Your task to perform on an android device: View the shopping cart on costco. Search for "razer blade" on costco, select the first entry, add it to the cart, then select checkout. Image 0: 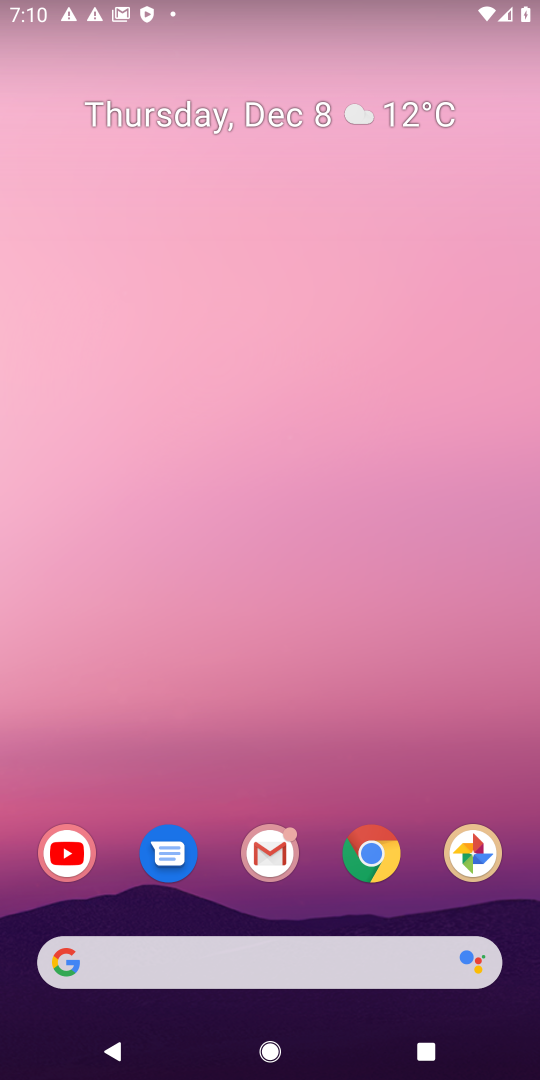
Step 0: click (152, 959)
Your task to perform on an android device: View the shopping cart on costco. Search for "razer blade" on costco, select the first entry, add it to the cart, then select checkout. Image 1: 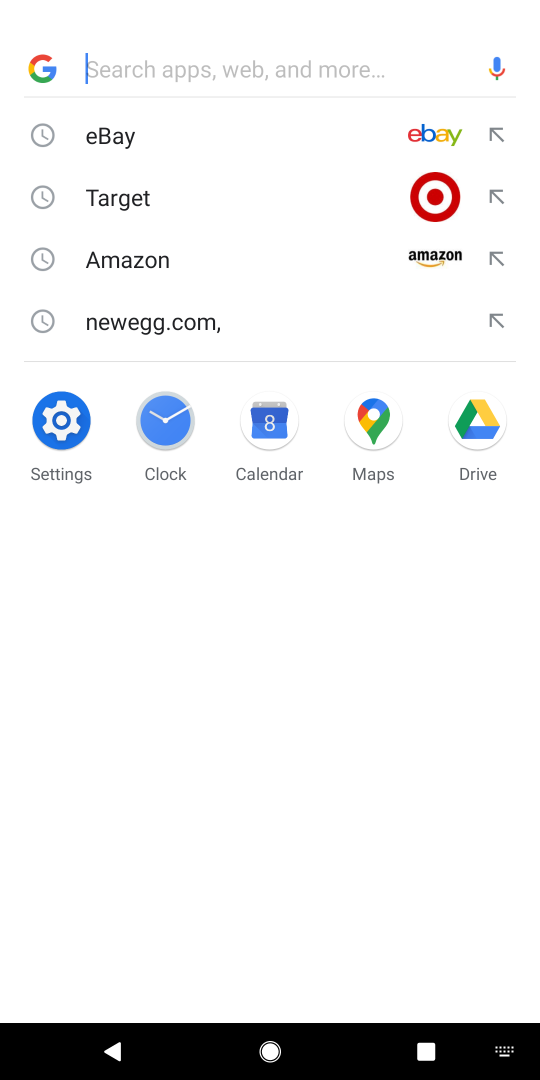
Step 1: type "costco"
Your task to perform on an android device: View the shopping cart on costco. Search for "razer blade" on costco, select the first entry, add it to the cart, then select checkout. Image 2: 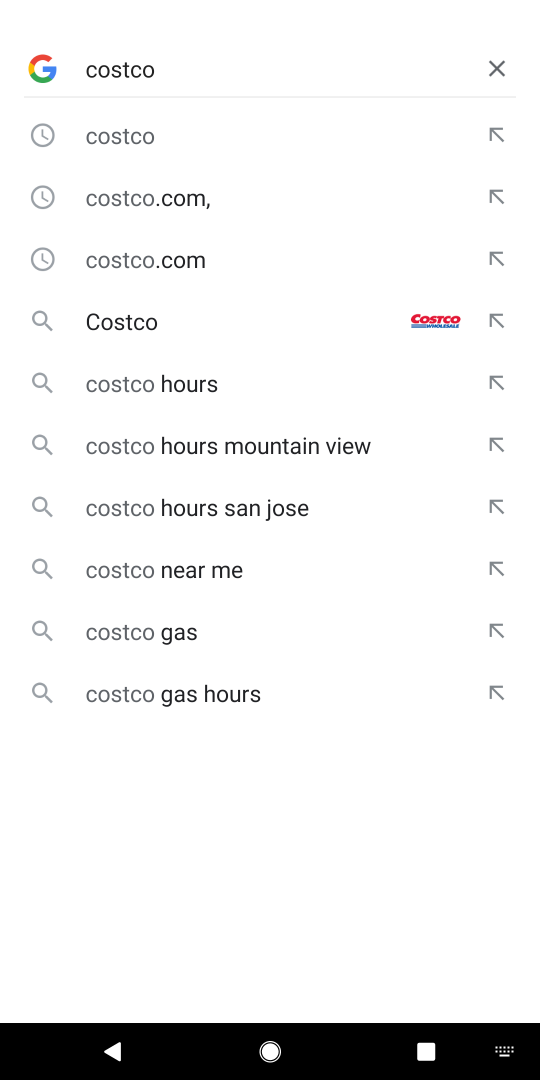
Step 2: type ""
Your task to perform on an android device: View the shopping cart on costco. Search for "razer blade" on costco, select the first entry, add it to the cart, then select checkout. Image 3: 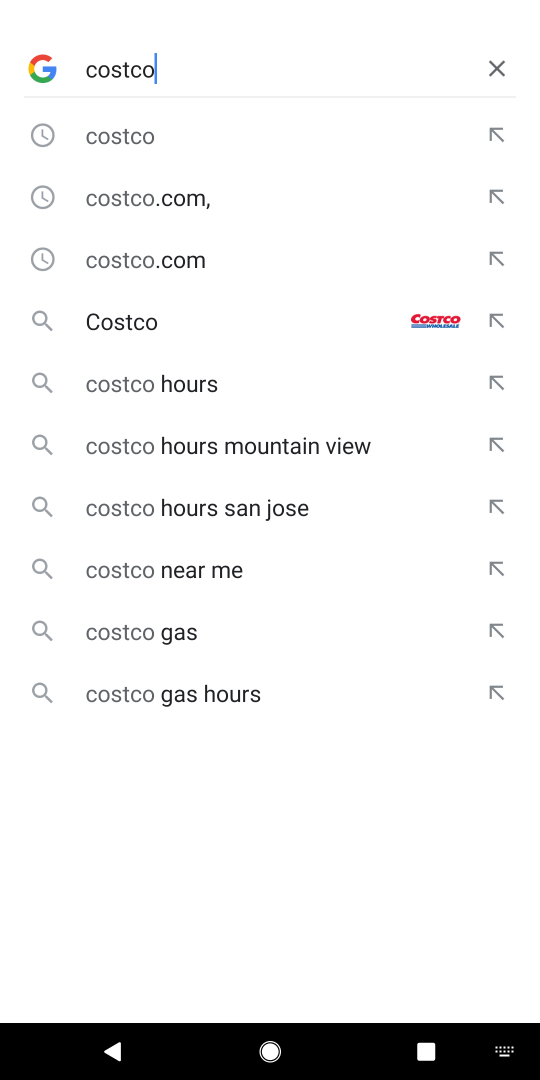
Step 3: click (113, 197)
Your task to perform on an android device: View the shopping cart on costco. Search for "razer blade" on costco, select the first entry, add it to the cart, then select checkout. Image 4: 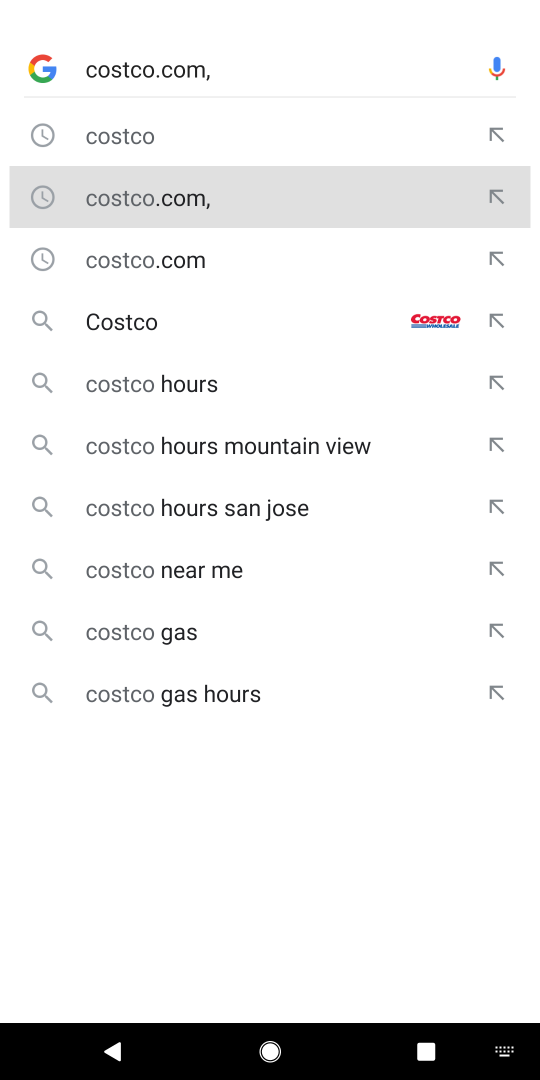
Step 4: click (113, 197)
Your task to perform on an android device: View the shopping cart on costco. Search for "razer blade" on costco, select the first entry, add it to the cart, then select checkout. Image 5: 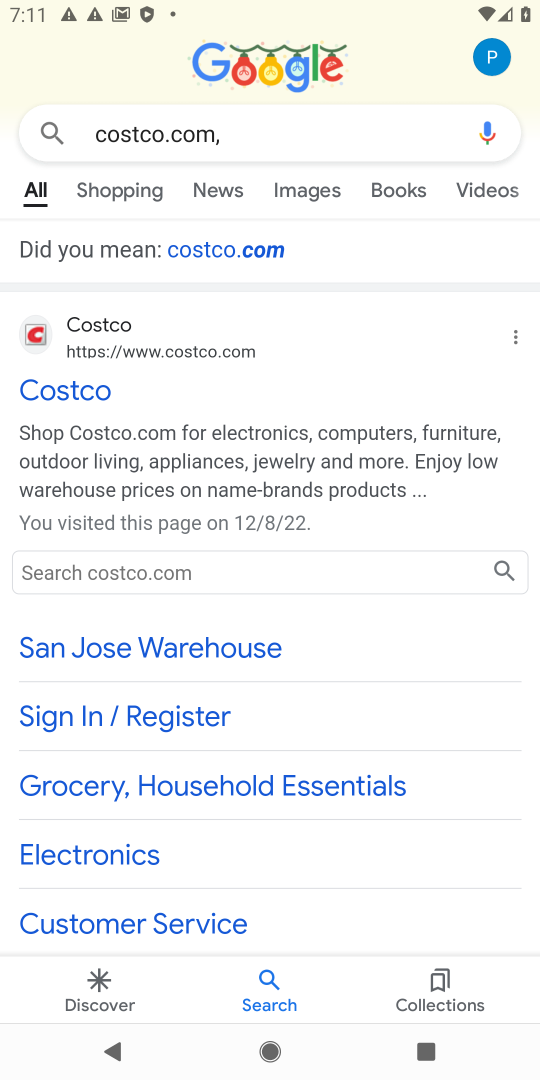
Step 5: click (89, 329)
Your task to perform on an android device: View the shopping cart on costco. Search for "razer blade" on costco, select the first entry, add it to the cart, then select checkout. Image 6: 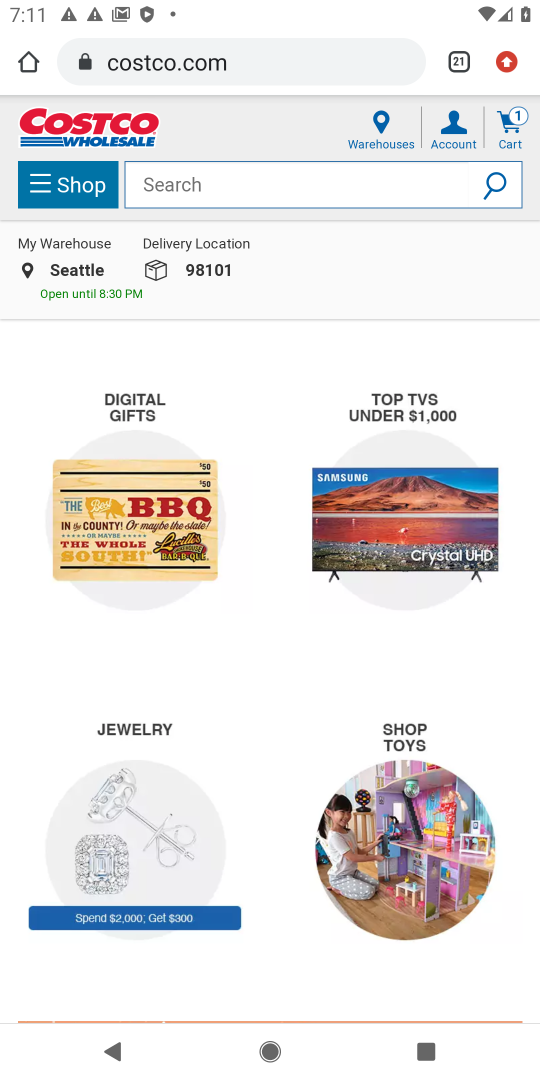
Step 6: click (502, 116)
Your task to perform on an android device: View the shopping cart on costco. Search for "razer blade" on costco, select the first entry, add it to the cart, then select checkout. Image 7: 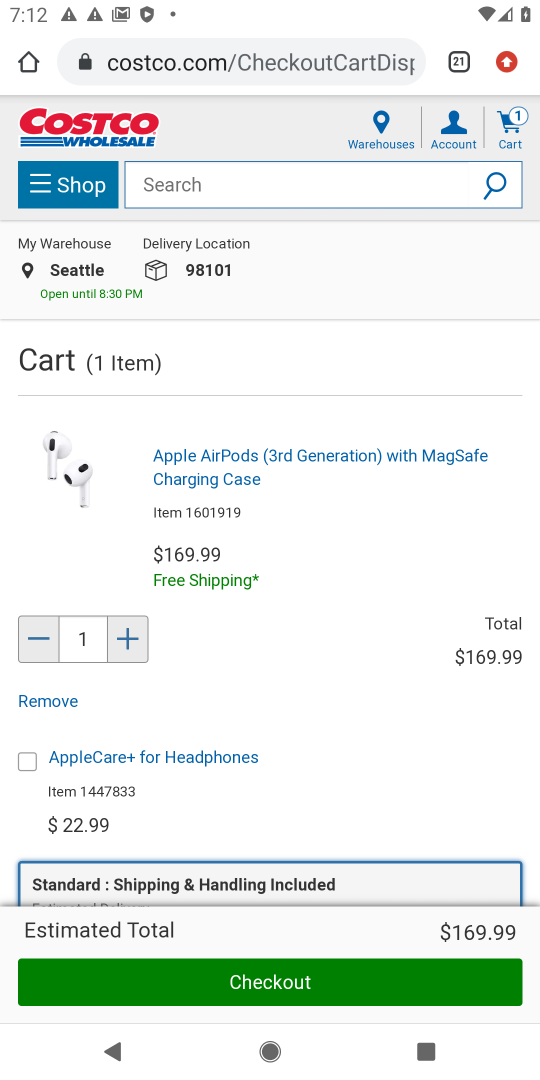
Step 7: click (179, 185)
Your task to perform on an android device: View the shopping cart on costco. Search for "razer blade" on costco, select the first entry, add it to the cart, then select checkout. Image 8: 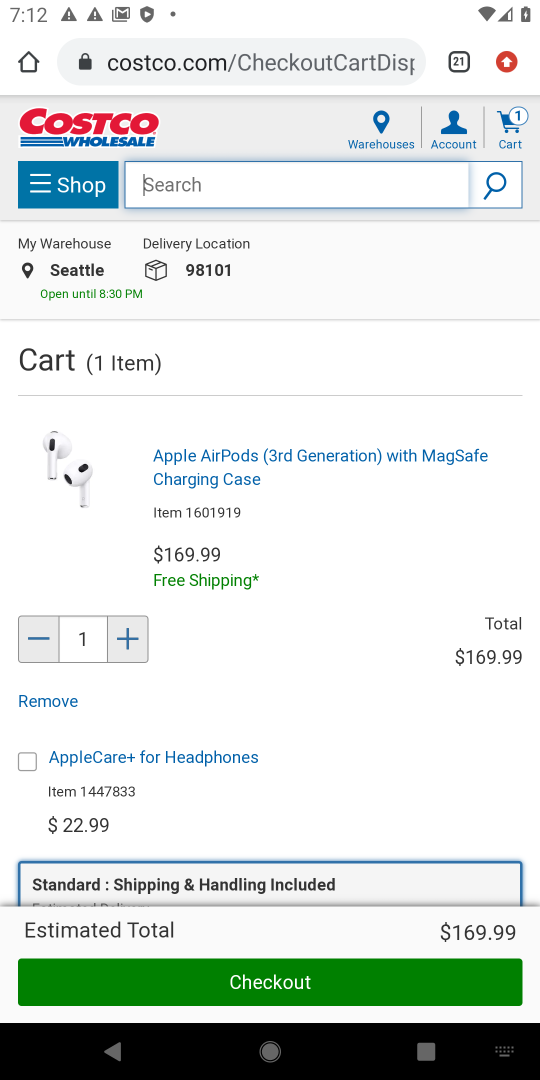
Step 8: type "razer blade"
Your task to perform on an android device: View the shopping cart on costco. Search for "razer blade" on costco, select the first entry, add it to the cart, then select checkout. Image 9: 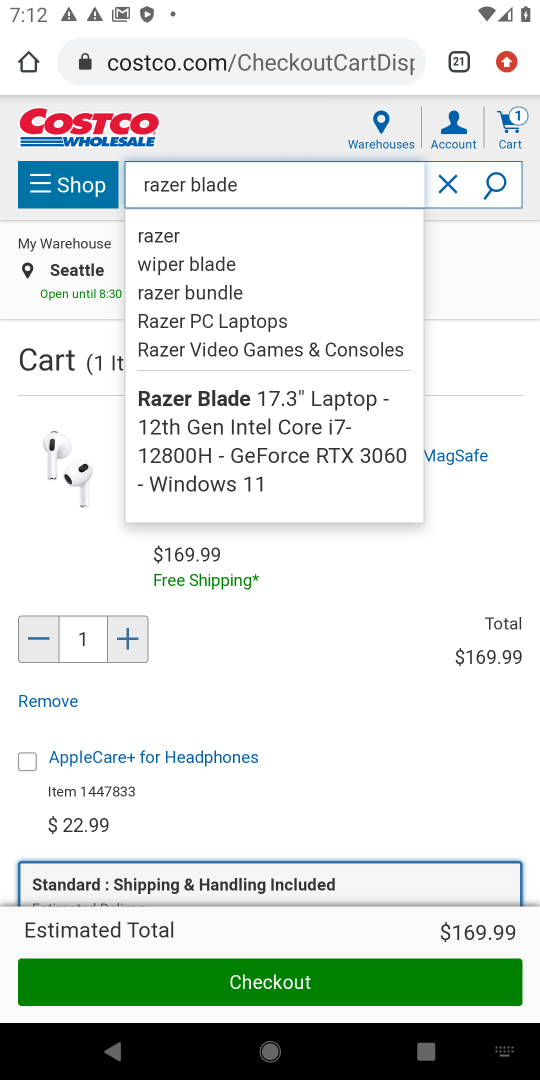
Step 9: click (489, 181)
Your task to perform on an android device: View the shopping cart on costco. Search for "razer blade" on costco, select the first entry, add it to the cart, then select checkout. Image 10: 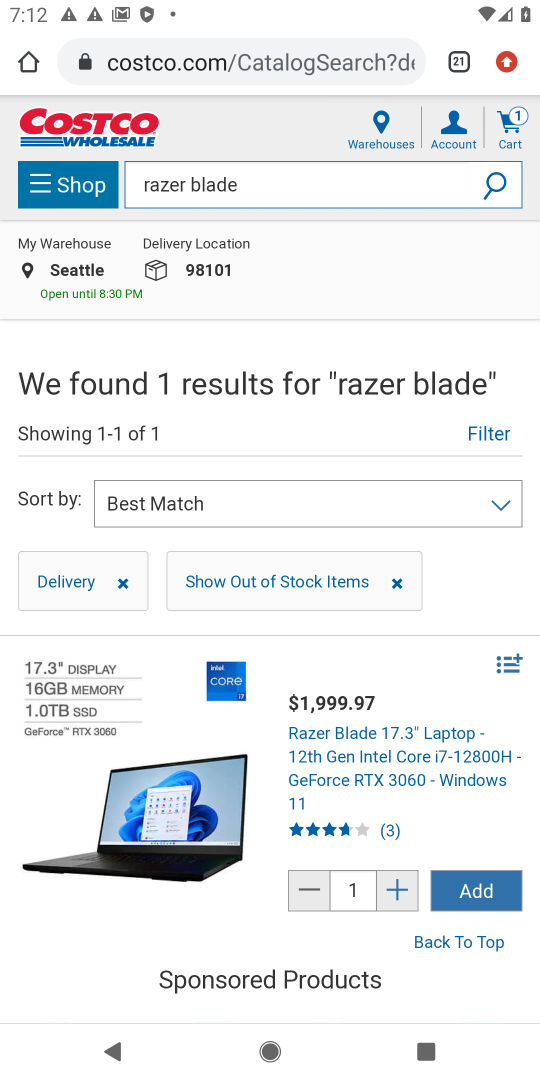
Step 10: click (485, 901)
Your task to perform on an android device: View the shopping cart on costco. Search for "razer blade" on costco, select the first entry, add it to the cart, then select checkout. Image 11: 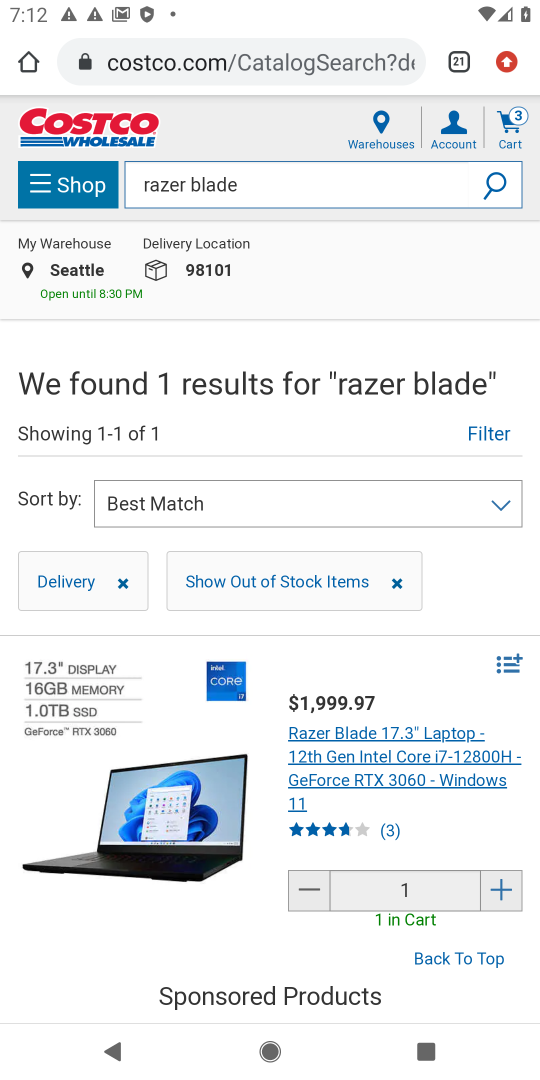
Step 11: click (506, 121)
Your task to perform on an android device: View the shopping cart on costco. Search for "razer blade" on costco, select the first entry, add it to the cart, then select checkout. Image 12: 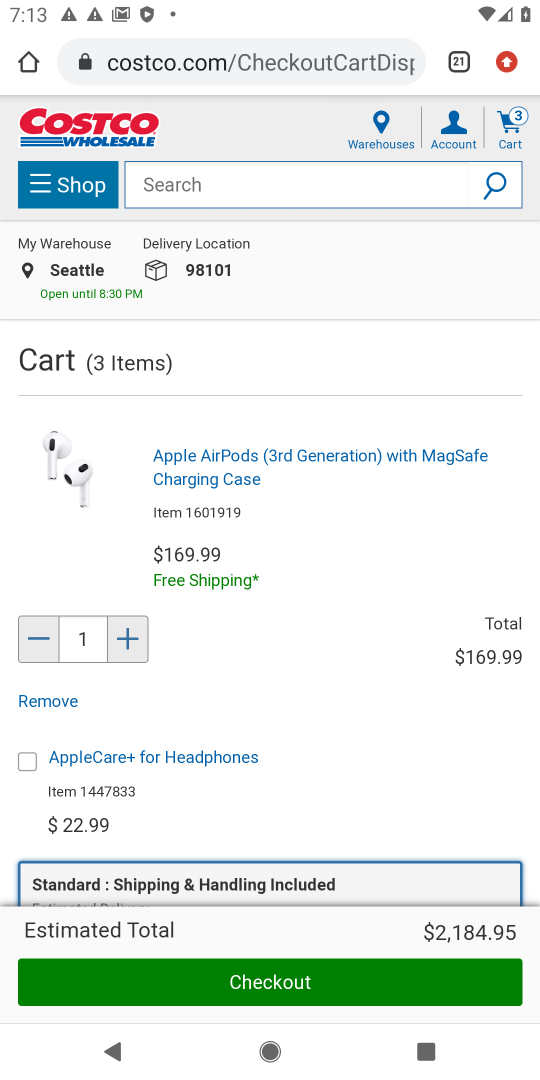
Step 12: click (237, 978)
Your task to perform on an android device: View the shopping cart on costco. Search for "razer blade" on costco, select the first entry, add it to the cart, then select checkout. Image 13: 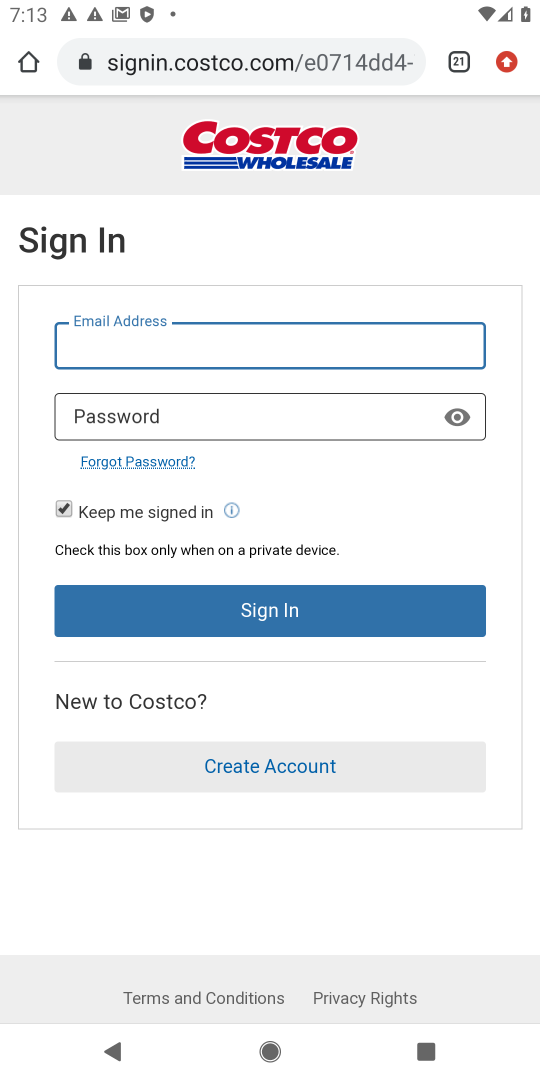
Step 13: task complete